Your task to perform on an android device: install app "Gmail" Image 0: 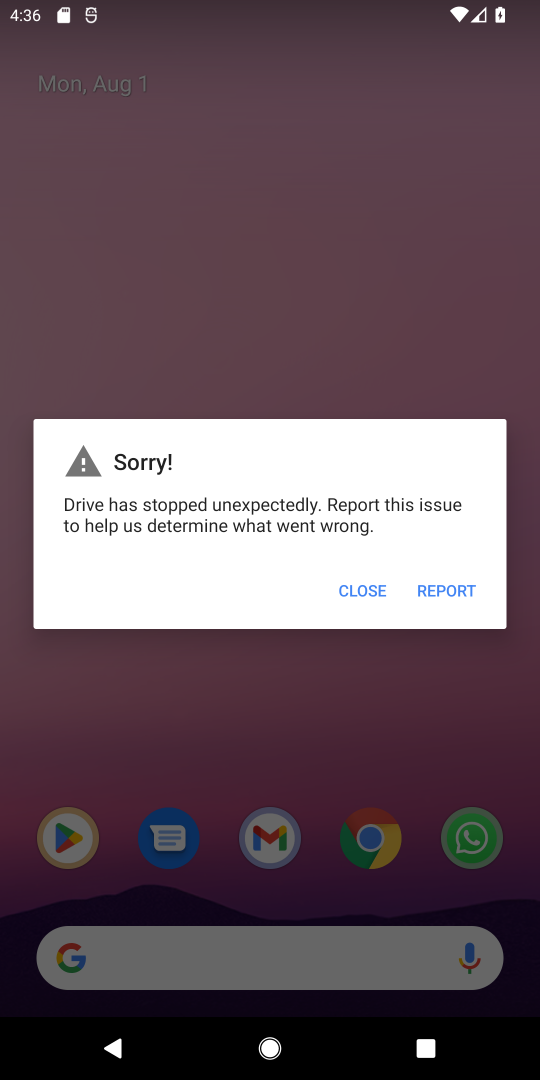
Step 0: press back button
Your task to perform on an android device: install app "Gmail" Image 1: 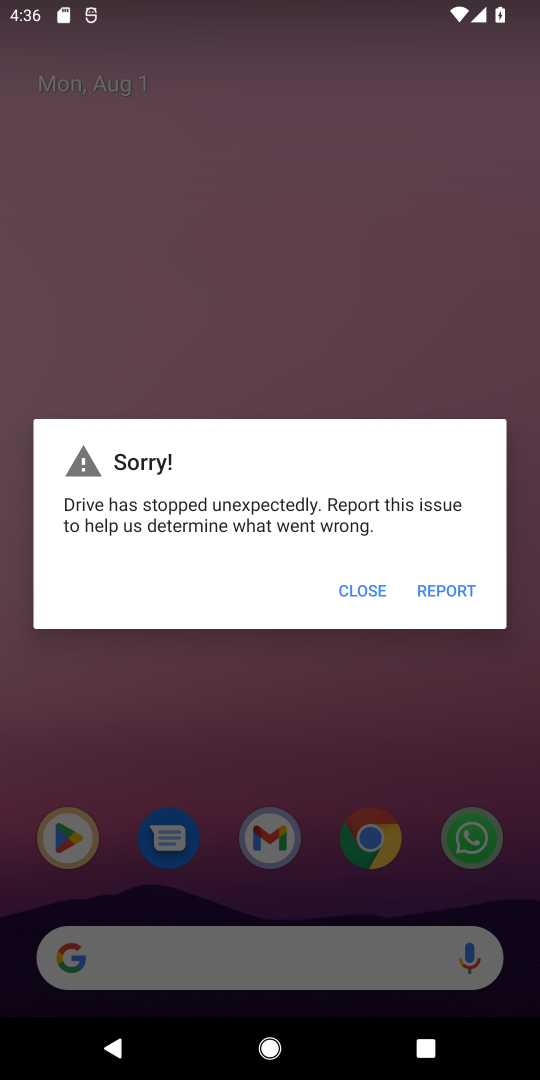
Step 1: press back button
Your task to perform on an android device: install app "Gmail" Image 2: 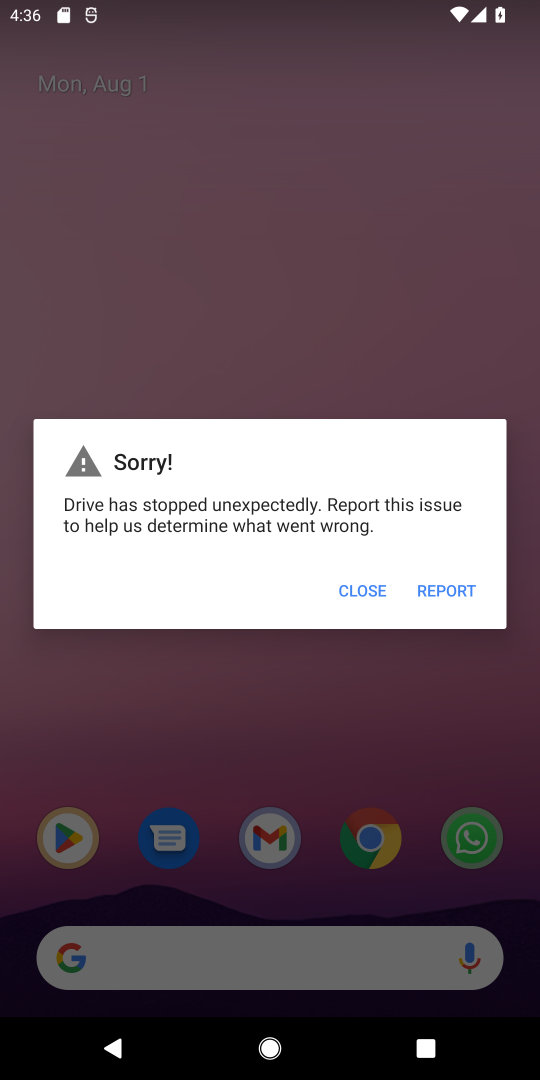
Step 2: press home button
Your task to perform on an android device: install app "Gmail" Image 3: 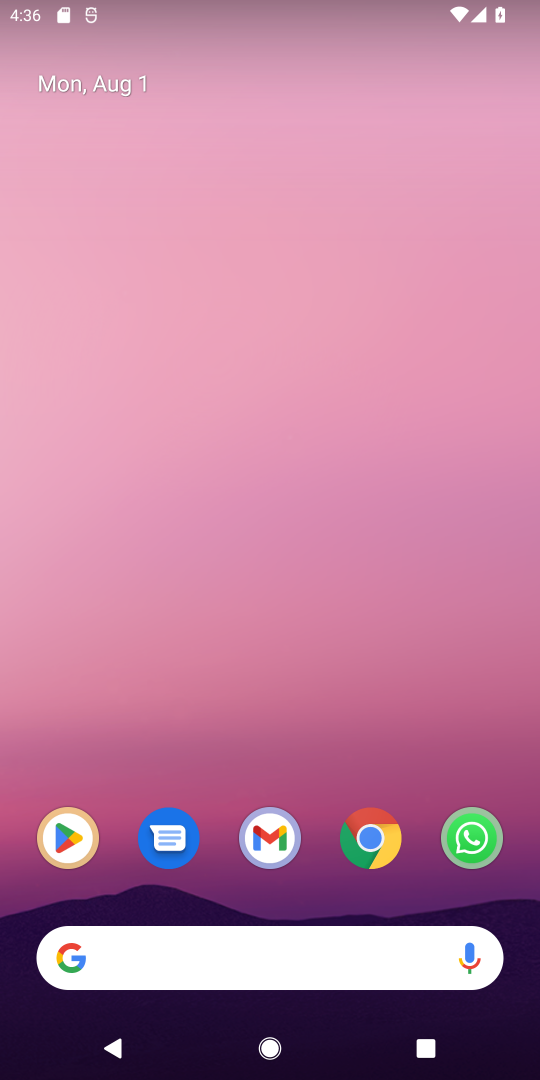
Step 3: click (89, 844)
Your task to perform on an android device: install app "Gmail" Image 4: 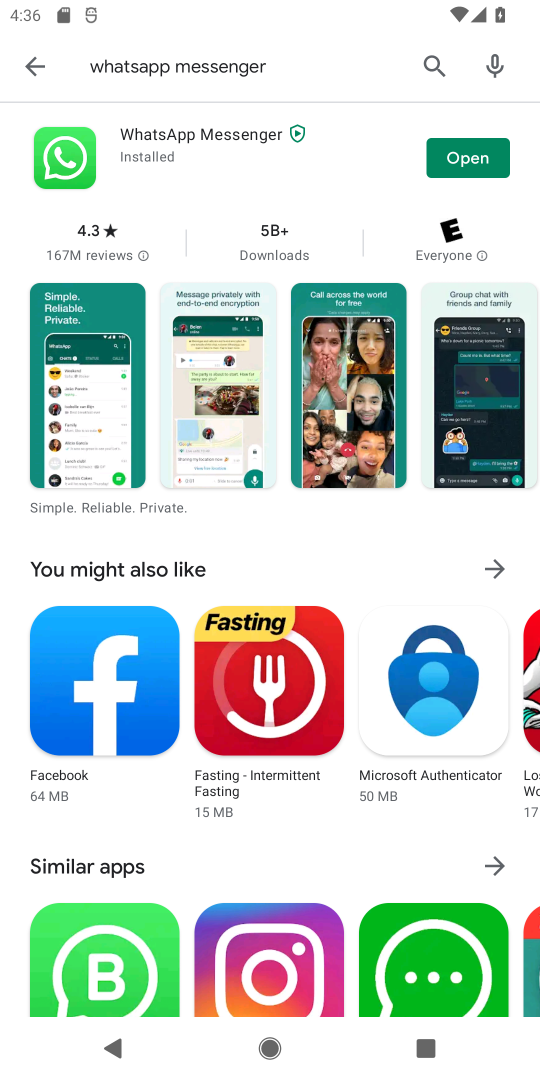
Step 4: click (424, 73)
Your task to perform on an android device: install app "Gmail" Image 5: 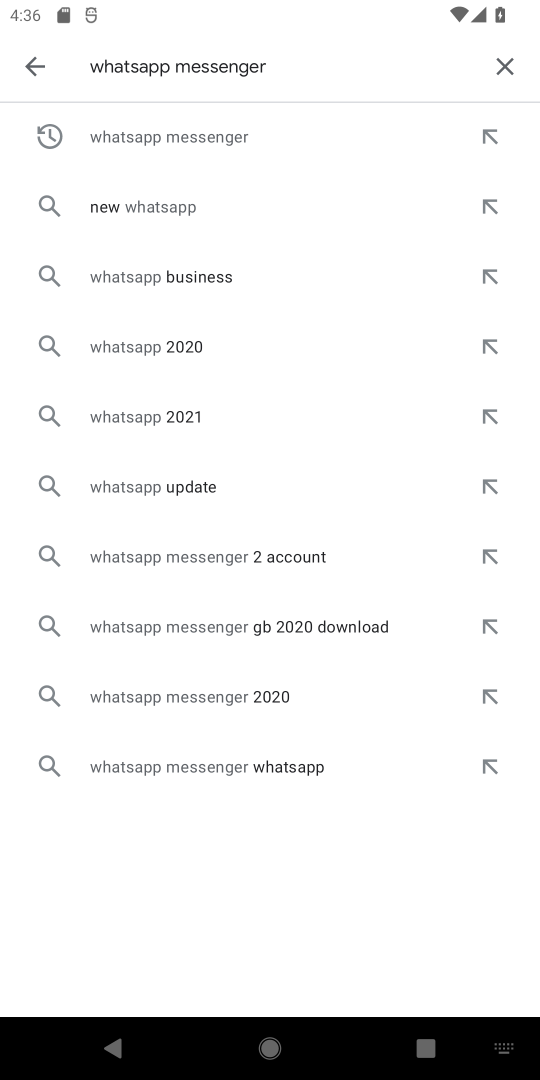
Step 5: click (503, 61)
Your task to perform on an android device: install app "Gmail" Image 6: 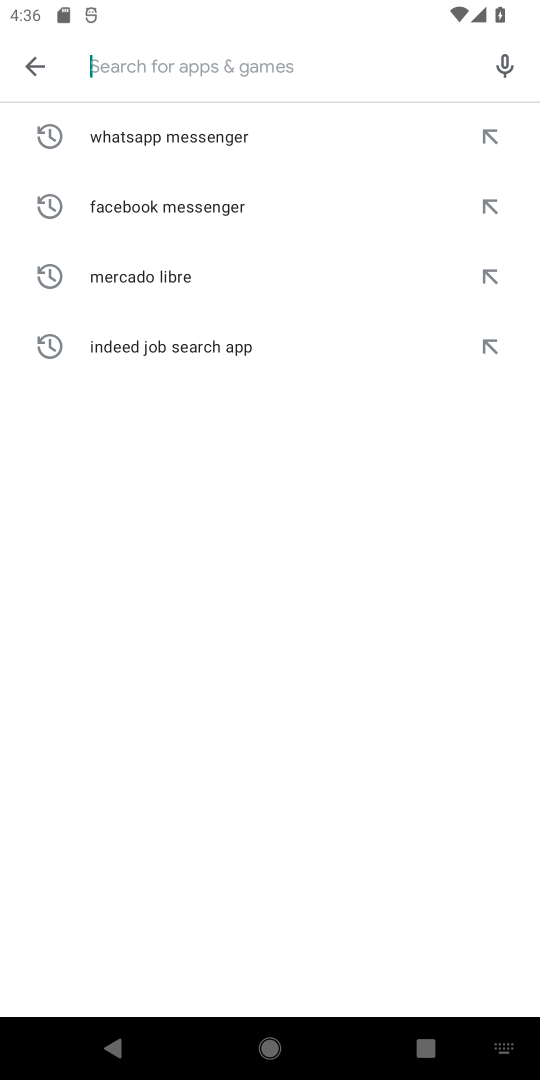
Step 6: type "Gmail"
Your task to perform on an android device: install app "Gmail" Image 7: 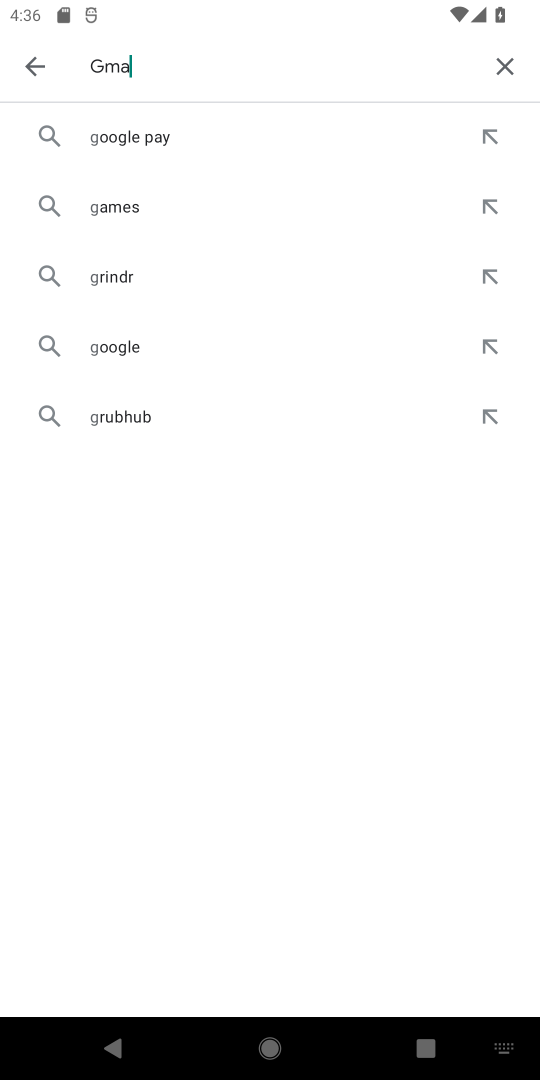
Step 7: type ""
Your task to perform on an android device: install app "Gmail" Image 8: 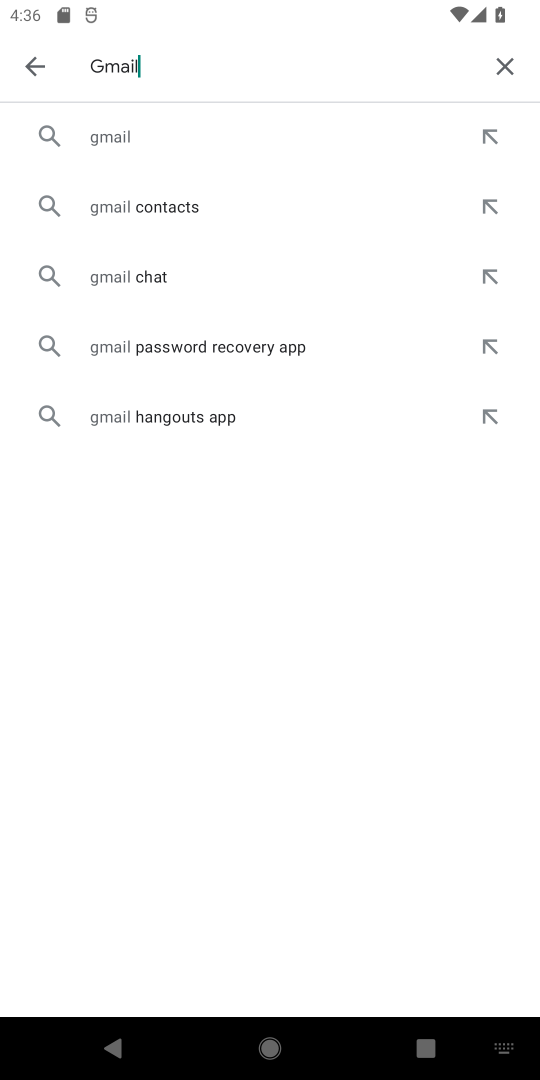
Step 8: click (204, 127)
Your task to perform on an android device: install app "Gmail" Image 9: 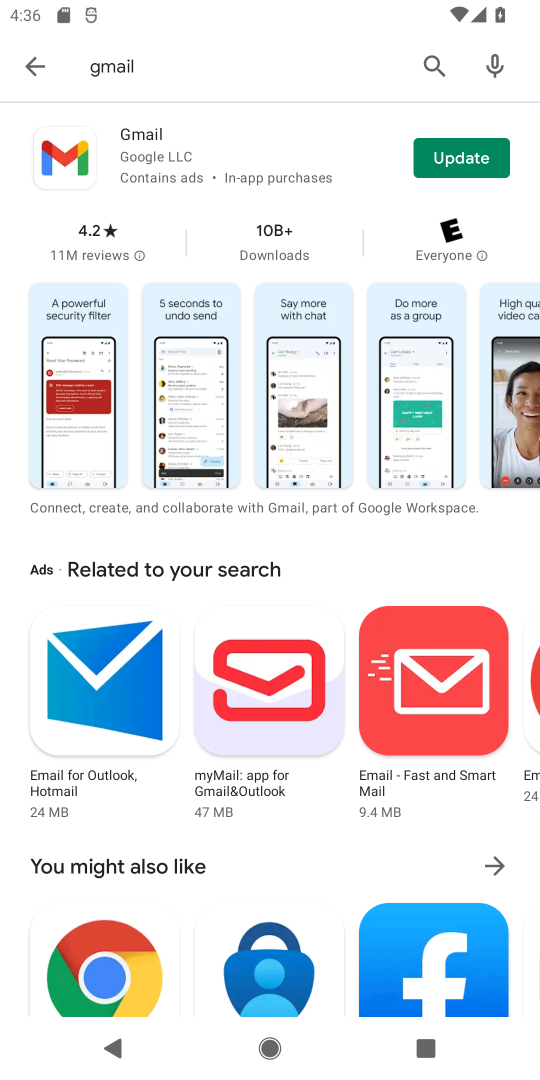
Step 9: task complete